Your task to perform on an android device: turn off smart reply in the gmail app Image 0: 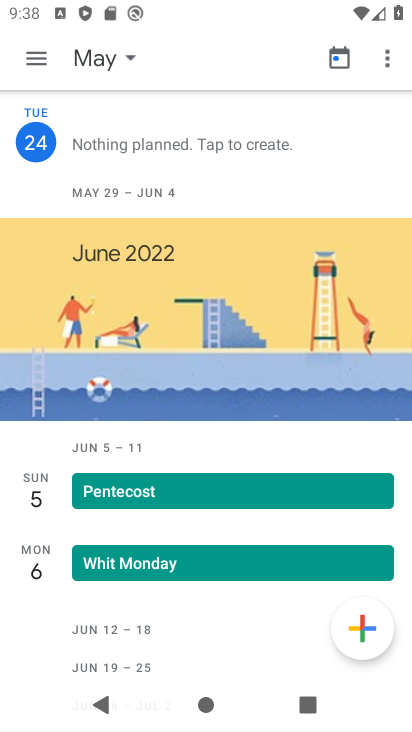
Step 0: press home button
Your task to perform on an android device: turn off smart reply in the gmail app Image 1: 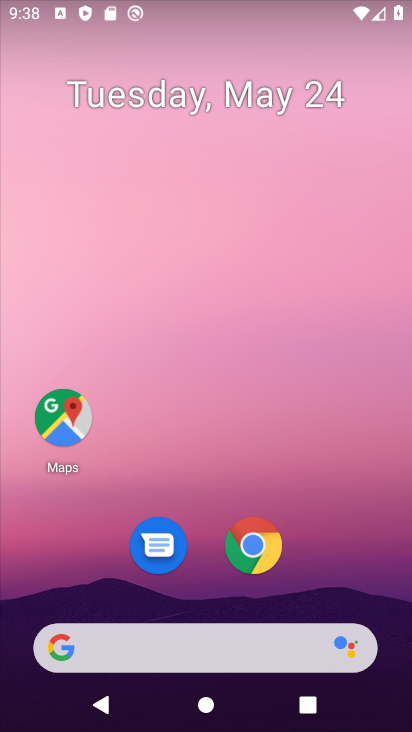
Step 1: drag from (203, 482) to (219, 0)
Your task to perform on an android device: turn off smart reply in the gmail app Image 2: 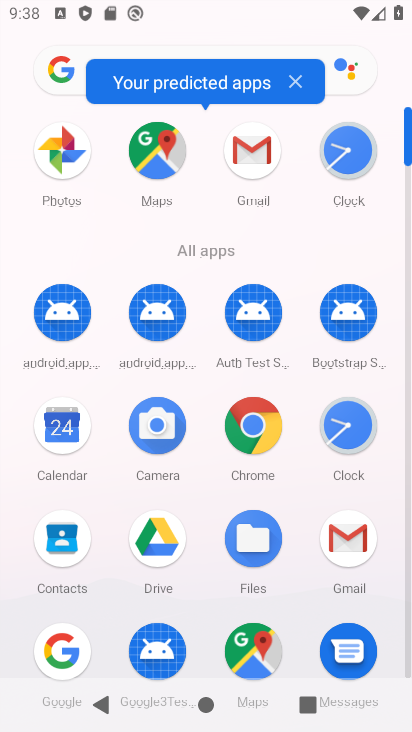
Step 2: click (260, 162)
Your task to perform on an android device: turn off smart reply in the gmail app Image 3: 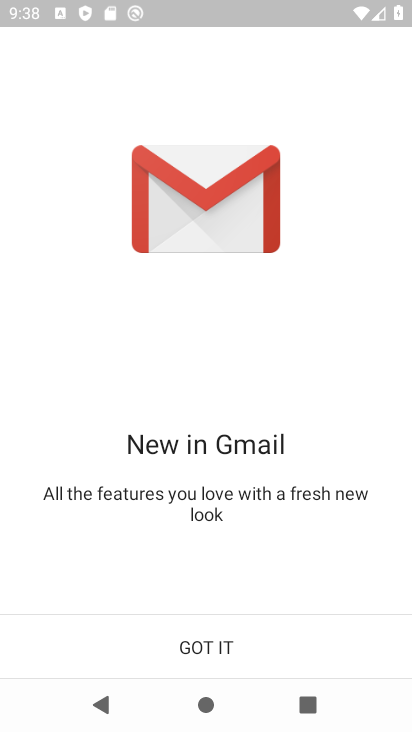
Step 3: click (212, 633)
Your task to perform on an android device: turn off smart reply in the gmail app Image 4: 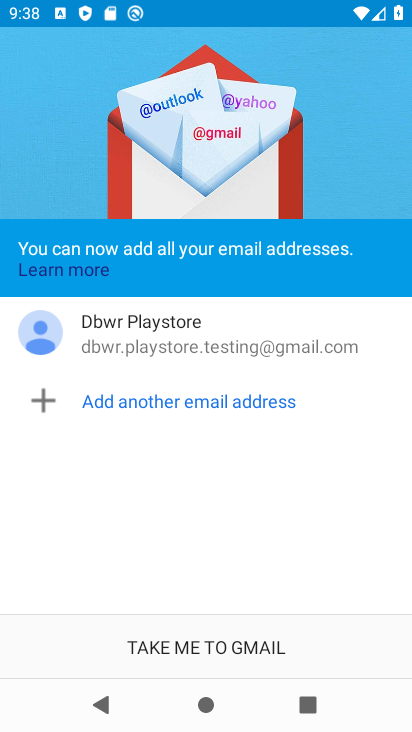
Step 4: click (212, 655)
Your task to perform on an android device: turn off smart reply in the gmail app Image 5: 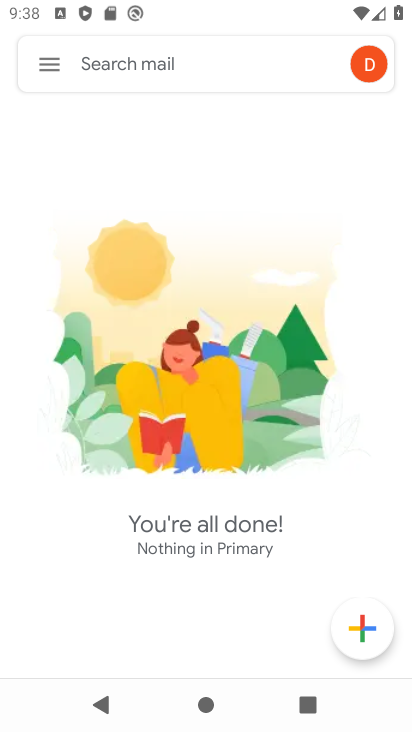
Step 5: click (50, 66)
Your task to perform on an android device: turn off smart reply in the gmail app Image 6: 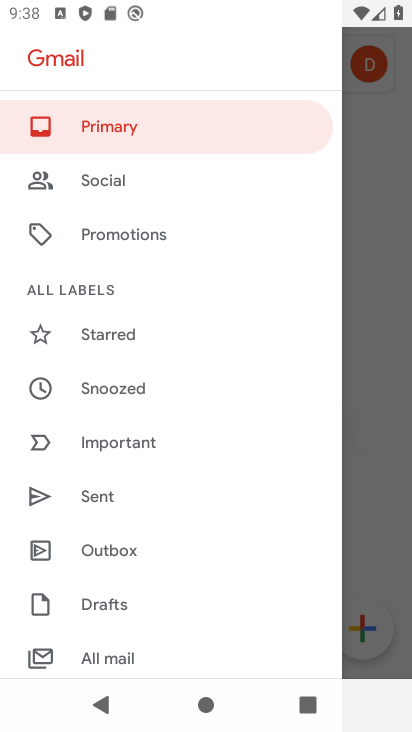
Step 6: drag from (170, 501) to (184, 213)
Your task to perform on an android device: turn off smart reply in the gmail app Image 7: 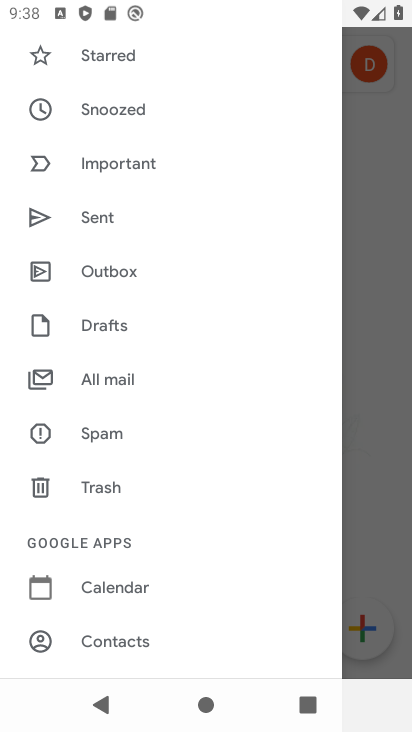
Step 7: drag from (158, 529) to (171, 316)
Your task to perform on an android device: turn off smart reply in the gmail app Image 8: 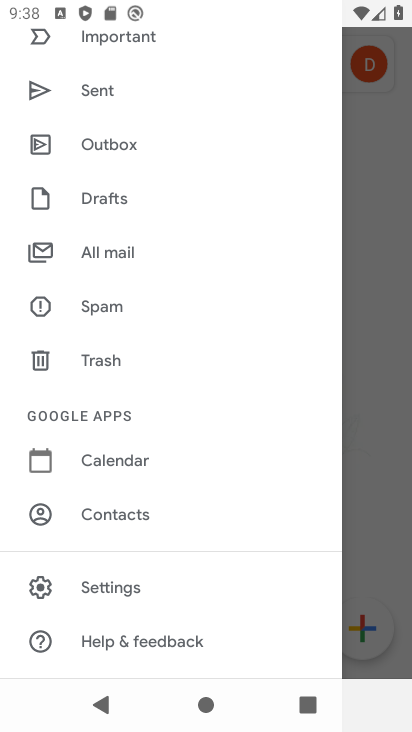
Step 8: click (154, 581)
Your task to perform on an android device: turn off smart reply in the gmail app Image 9: 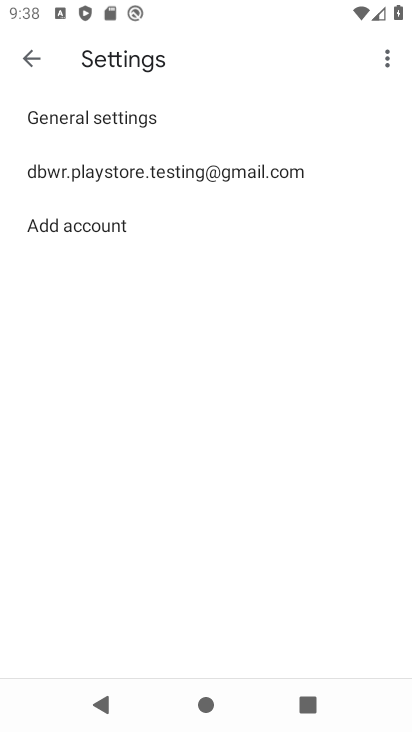
Step 9: click (250, 179)
Your task to perform on an android device: turn off smart reply in the gmail app Image 10: 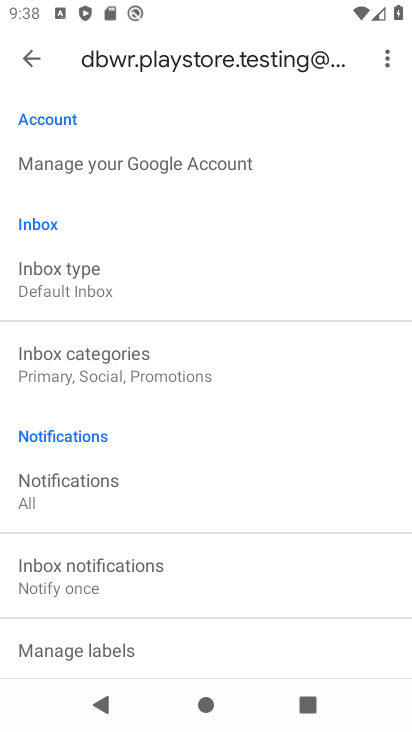
Step 10: drag from (238, 443) to (262, 109)
Your task to perform on an android device: turn off smart reply in the gmail app Image 11: 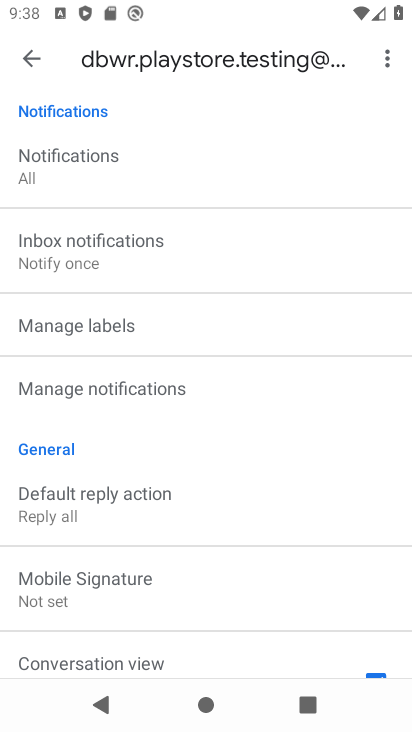
Step 11: drag from (231, 470) to (252, 103)
Your task to perform on an android device: turn off smart reply in the gmail app Image 12: 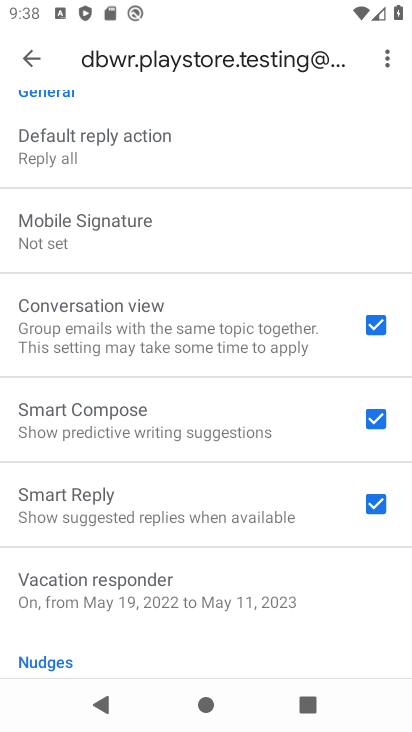
Step 12: drag from (234, 497) to (251, 115)
Your task to perform on an android device: turn off smart reply in the gmail app Image 13: 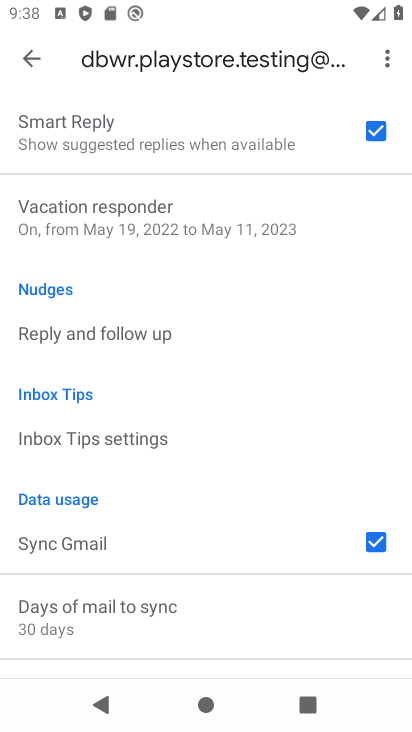
Step 13: click (364, 125)
Your task to perform on an android device: turn off smart reply in the gmail app Image 14: 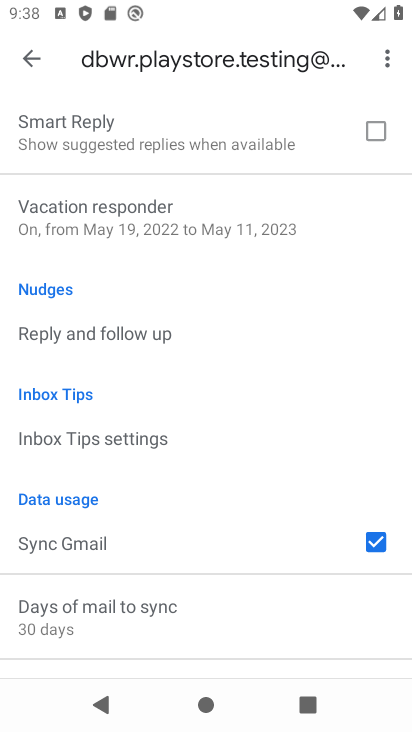
Step 14: task complete